Your task to perform on an android device: Go to Google maps Image 0: 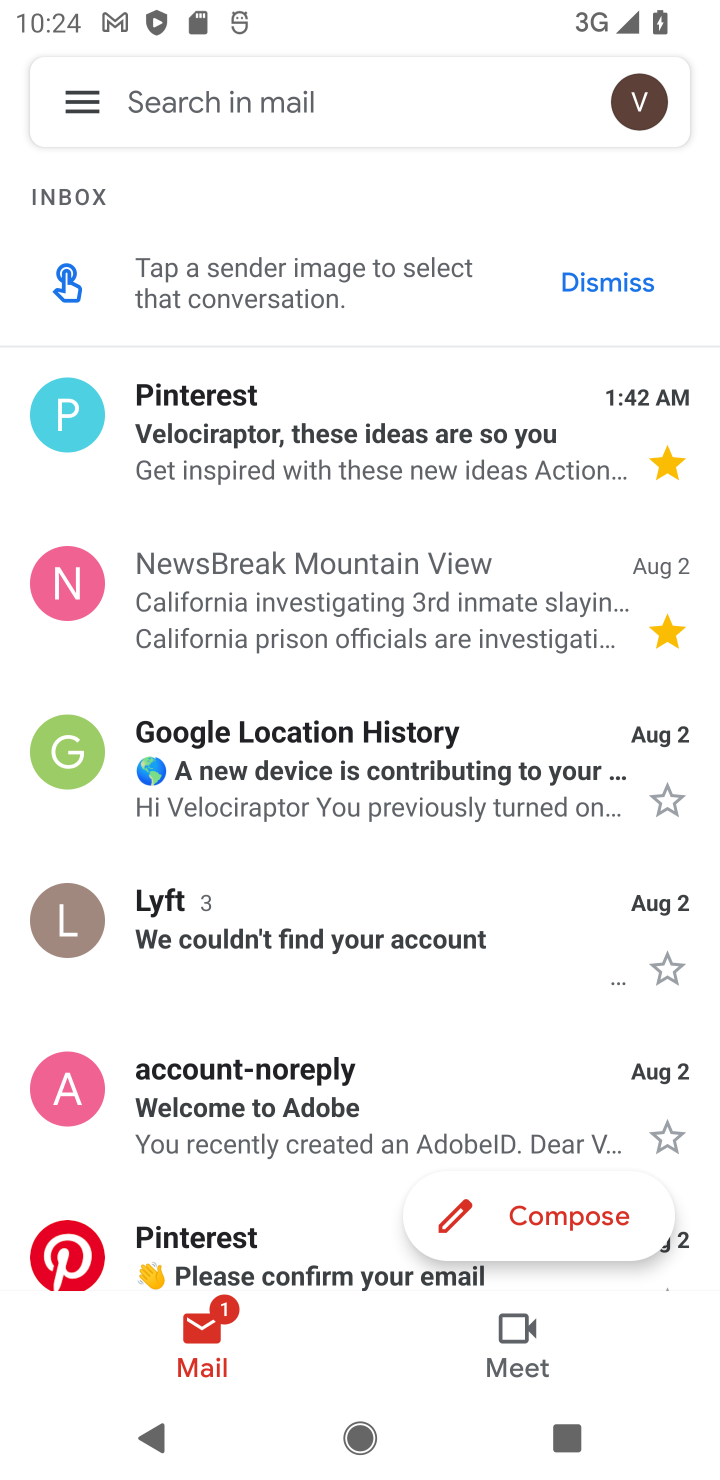
Step 0: press home button
Your task to perform on an android device: Go to Google maps Image 1: 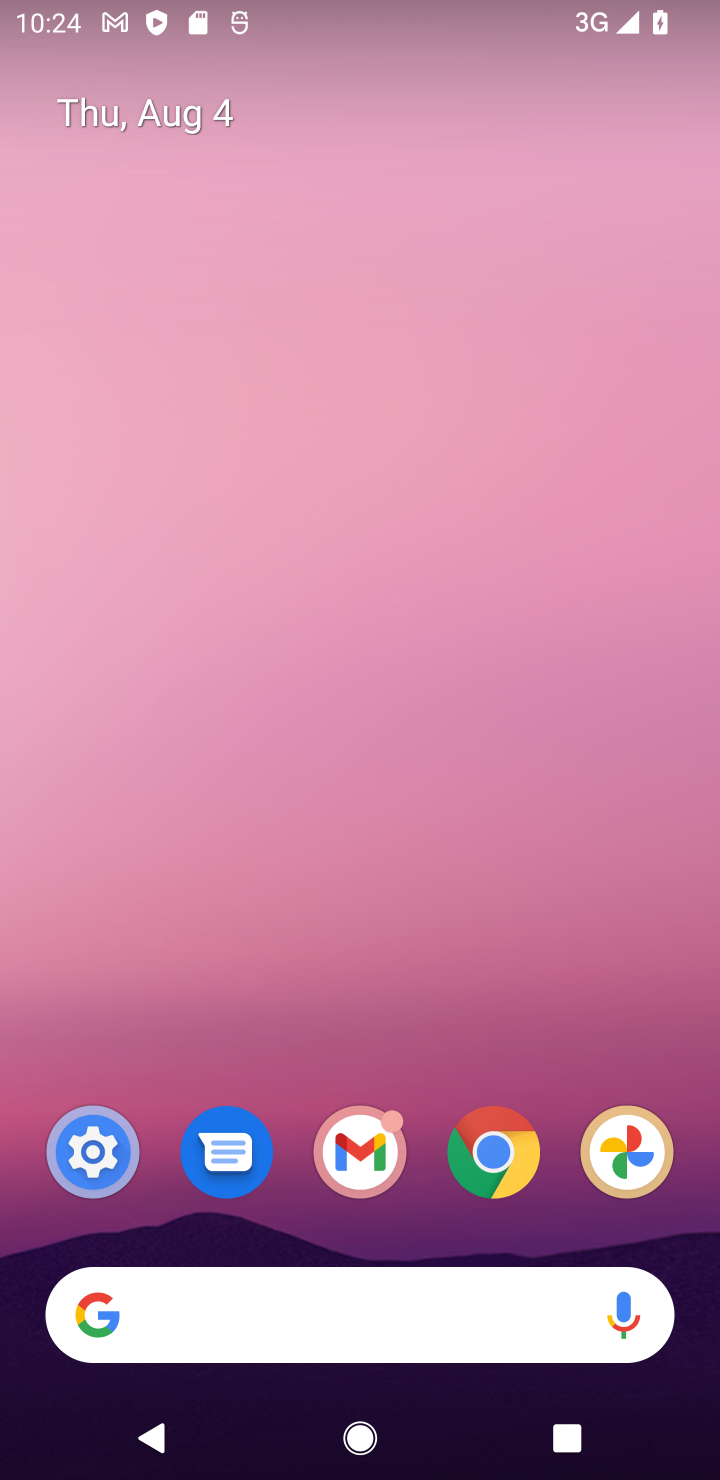
Step 1: drag from (380, 1232) to (484, 42)
Your task to perform on an android device: Go to Google maps Image 2: 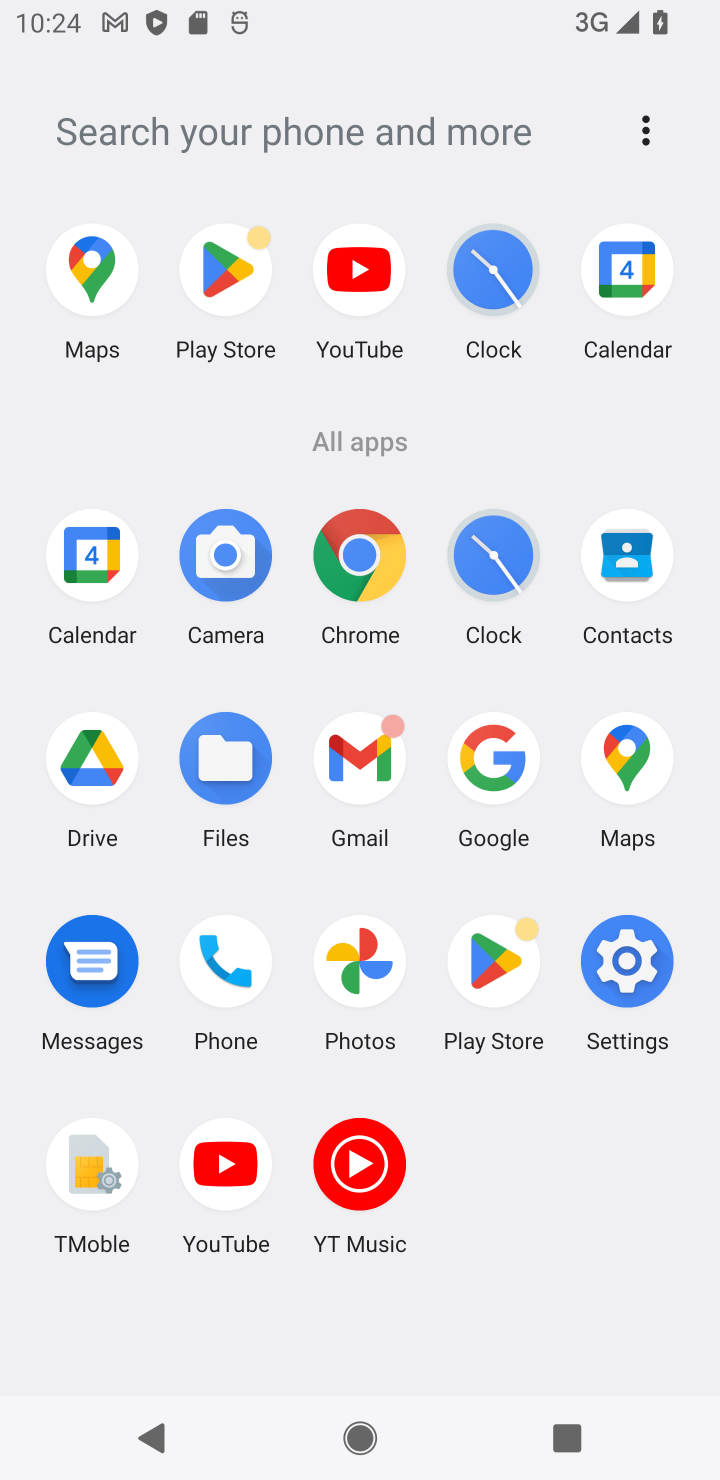
Step 2: click (644, 772)
Your task to perform on an android device: Go to Google maps Image 3: 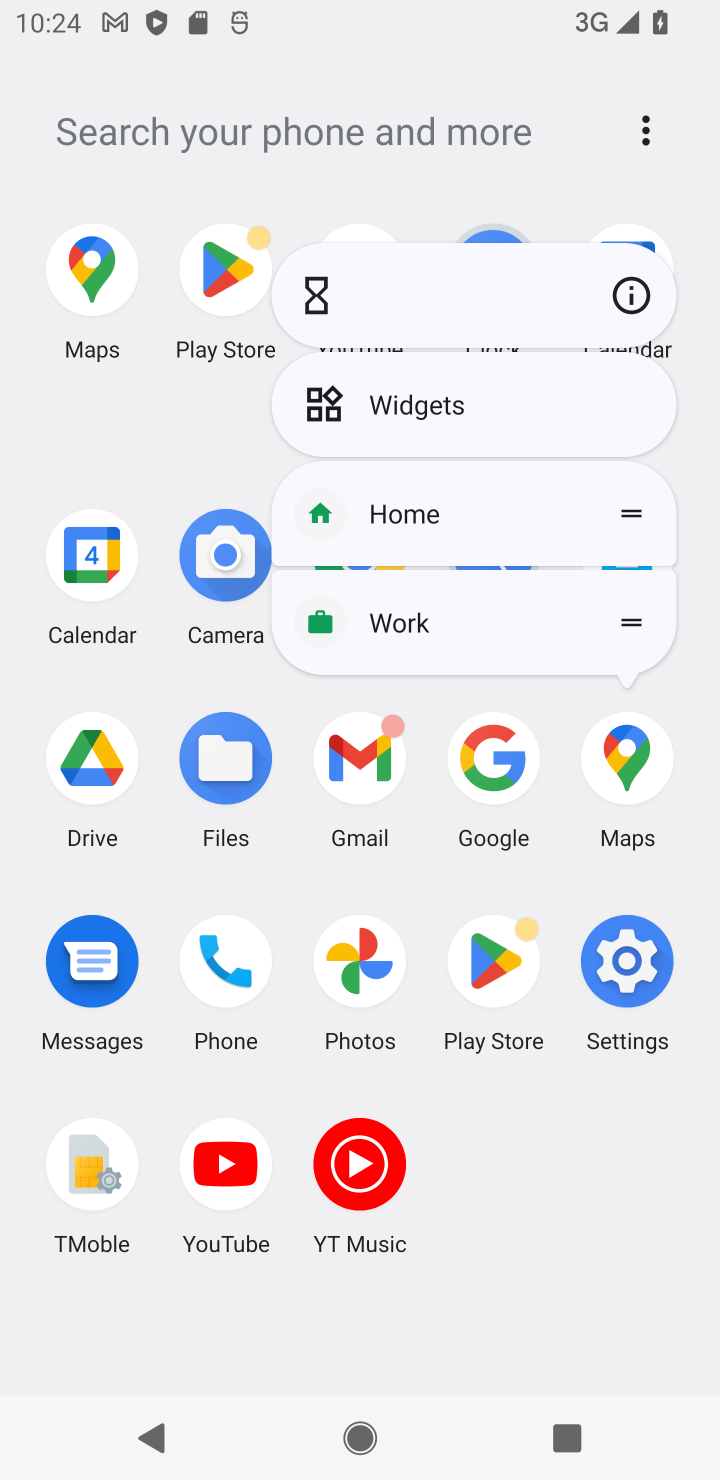
Step 3: click (644, 770)
Your task to perform on an android device: Go to Google maps Image 4: 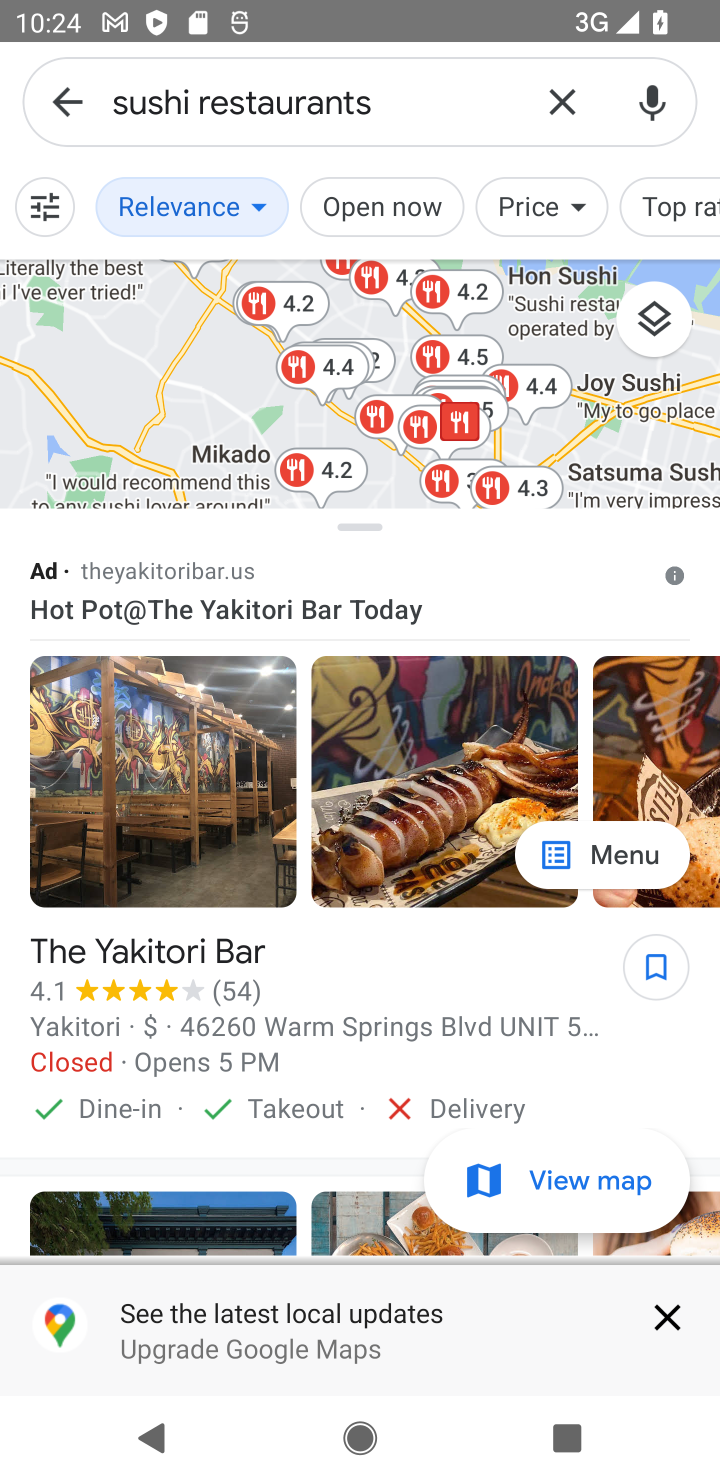
Step 4: click (62, 94)
Your task to perform on an android device: Go to Google maps Image 5: 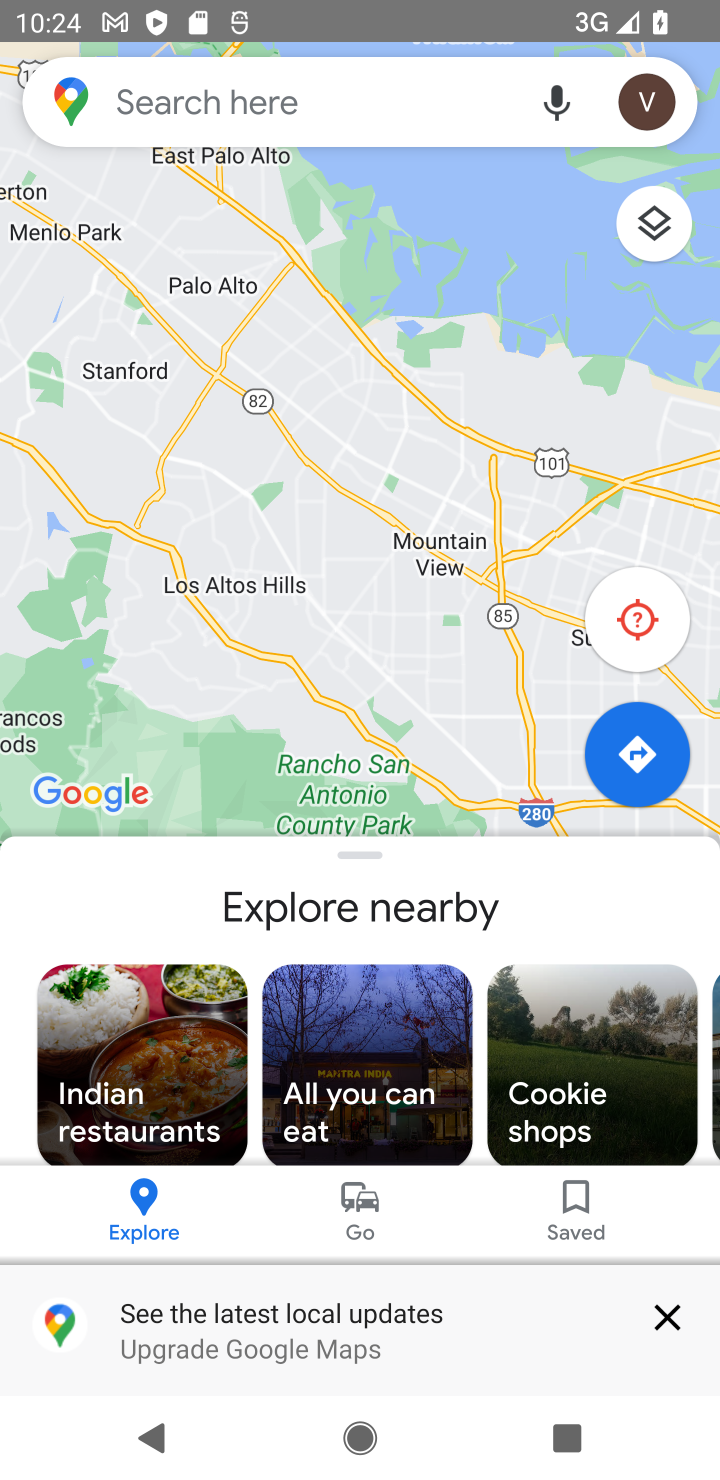
Step 5: task complete